Your task to perform on an android device: Search for the best books on Goodreads. Image 0: 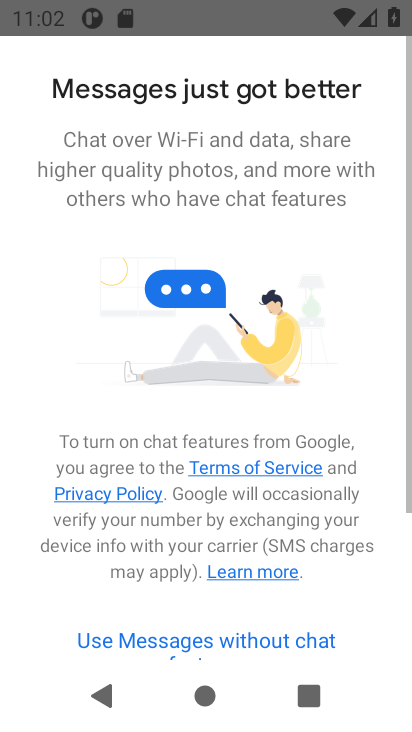
Step 0: task complete